Your task to perform on an android device: toggle notifications settings in the gmail app Image 0: 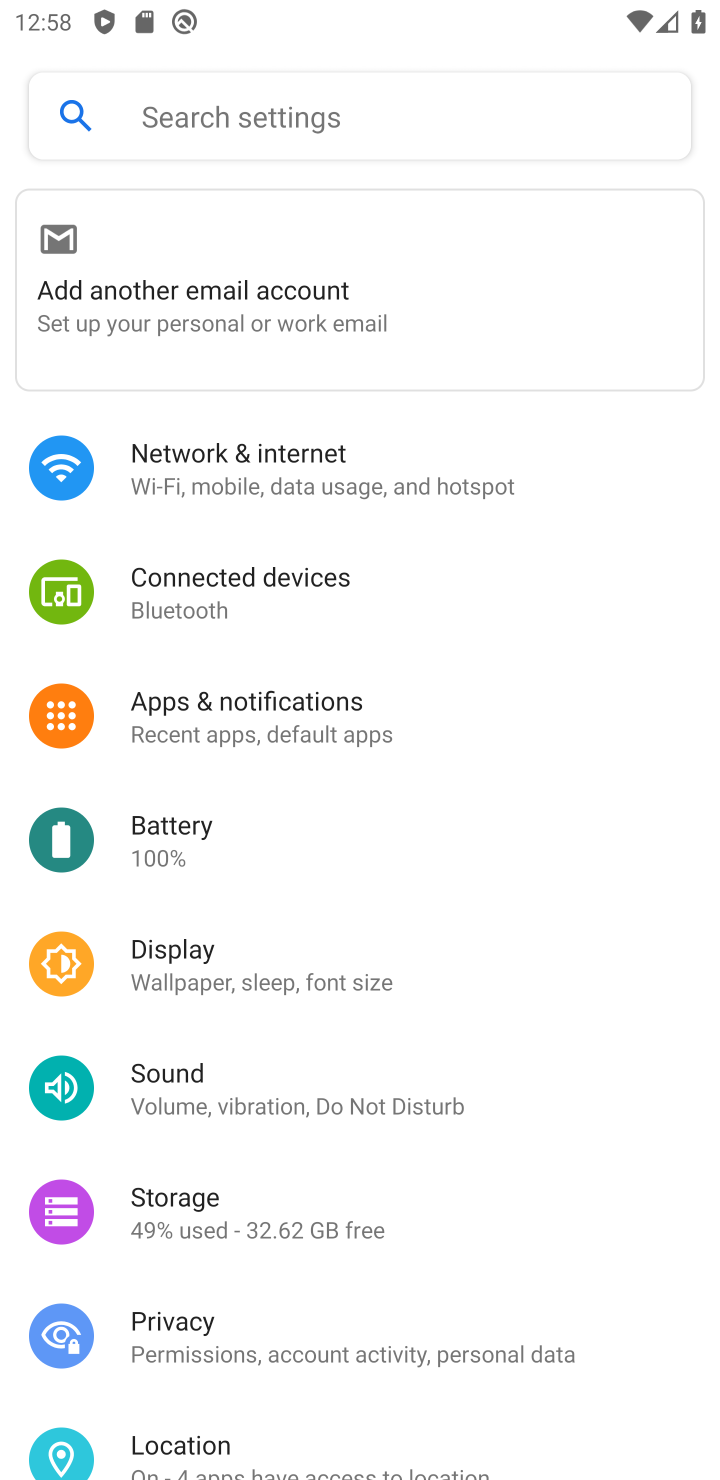
Step 0: press home button
Your task to perform on an android device: toggle notifications settings in the gmail app Image 1: 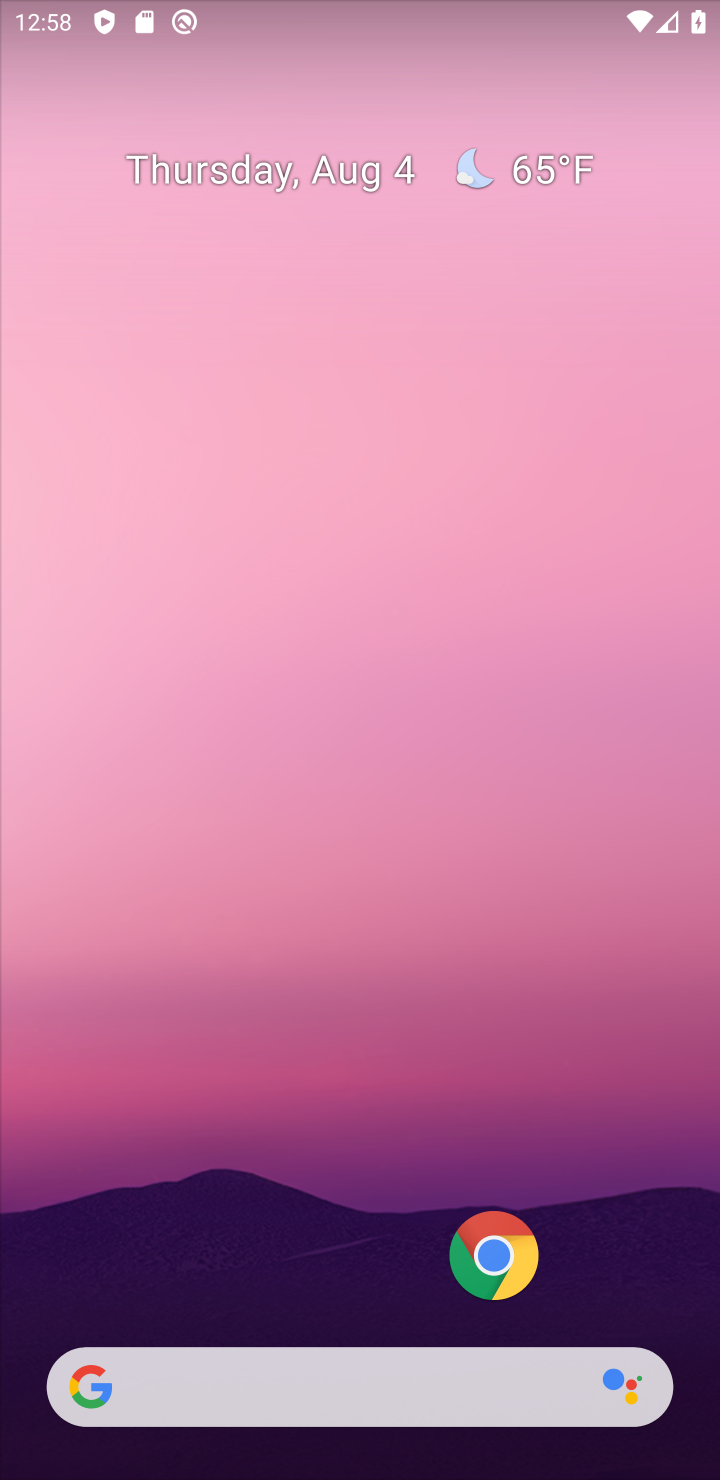
Step 1: drag from (232, 1103) to (344, 60)
Your task to perform on an android device: toggle notifications settings in the gmail app Image 2: 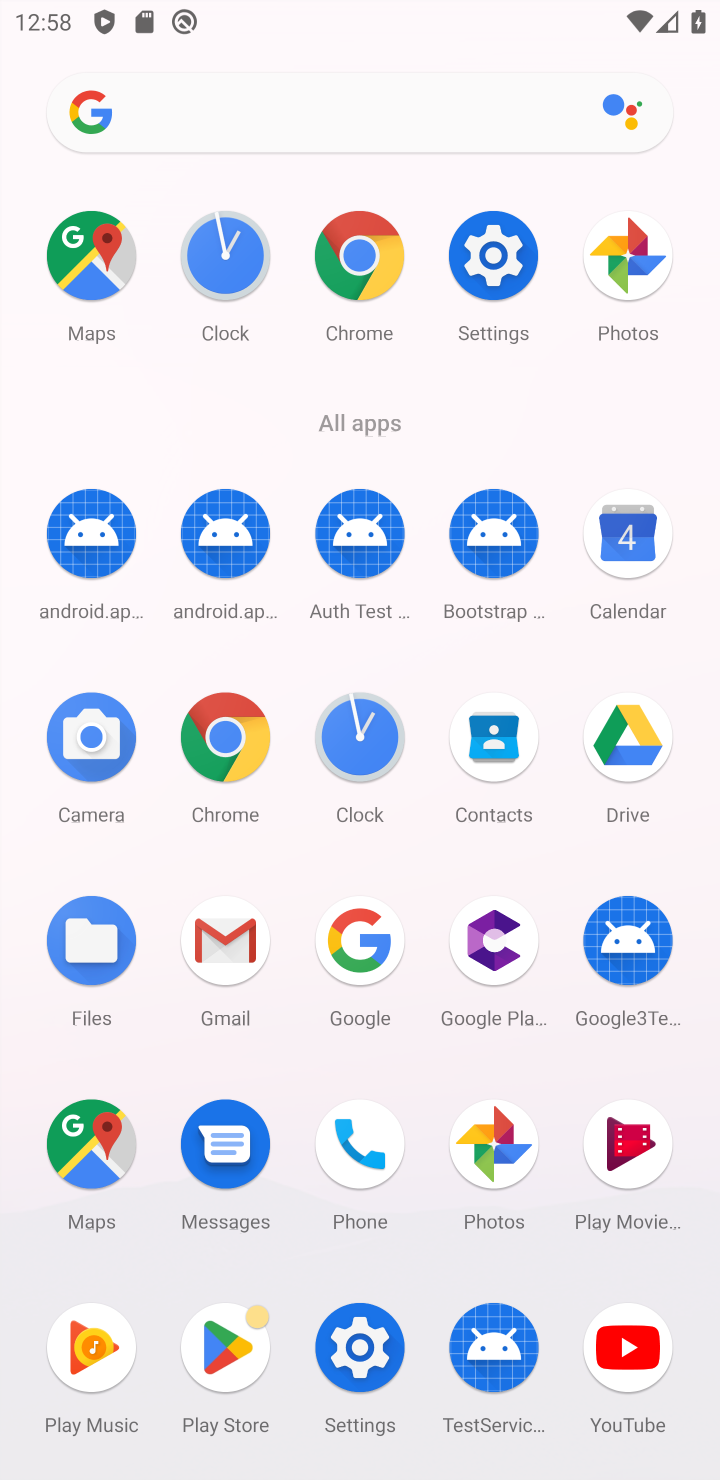
Step 2: click (226, 957)
Your task to perform on an android device: toggle notifications settings in the gmail app Image 3: 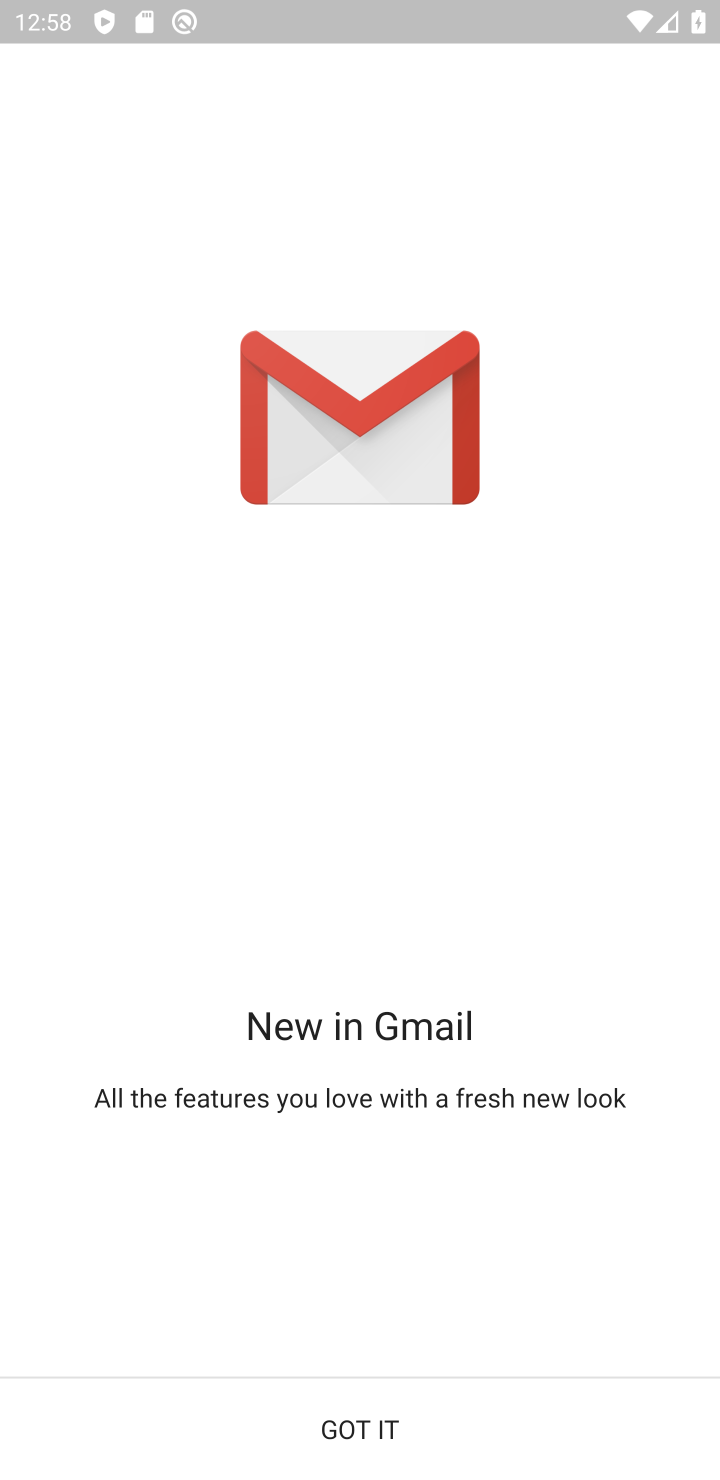
Step 3: click (302, 1427)
Your task to perform on an android device: toggle notifications settings in the gmail app Image 4: 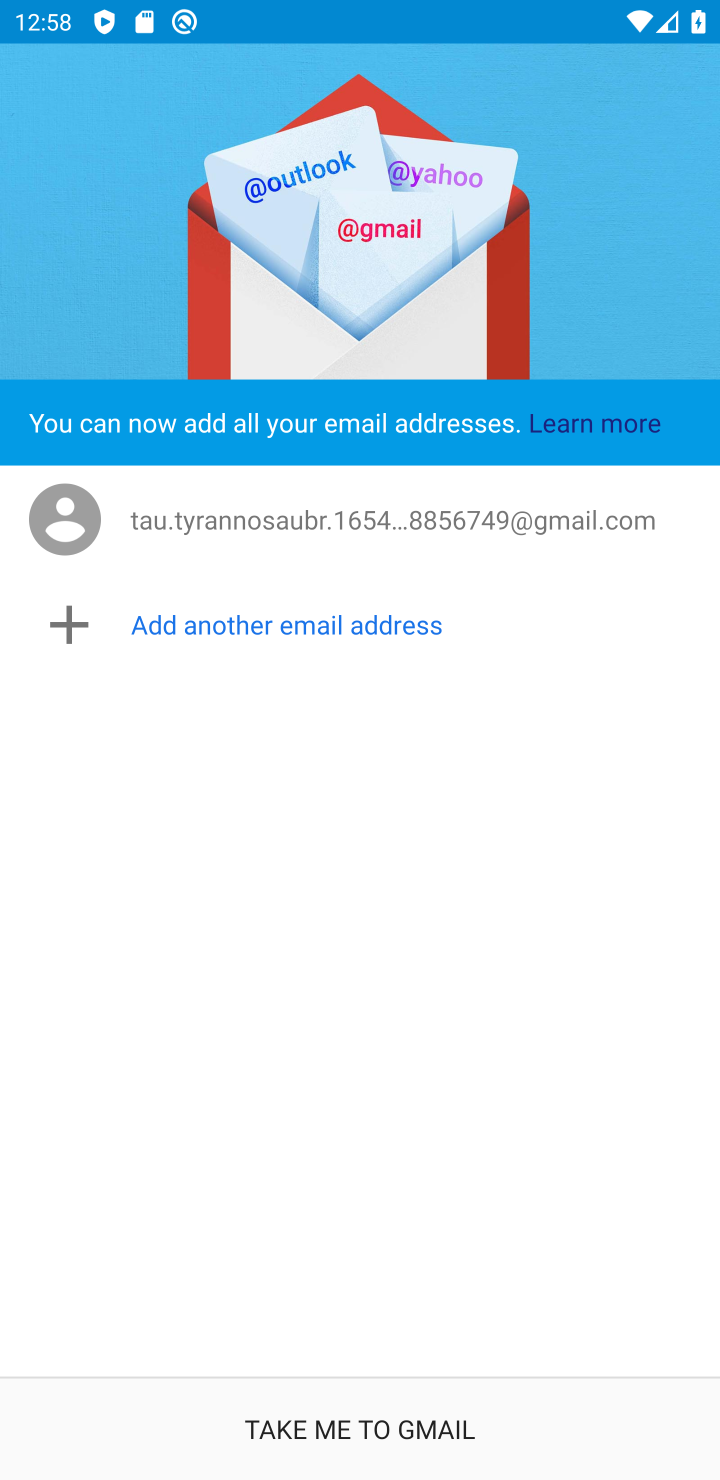
Step 4: click (433, 1431)
Your task to perform on an android device: toggle notifications settings in the gmail app Image 5: 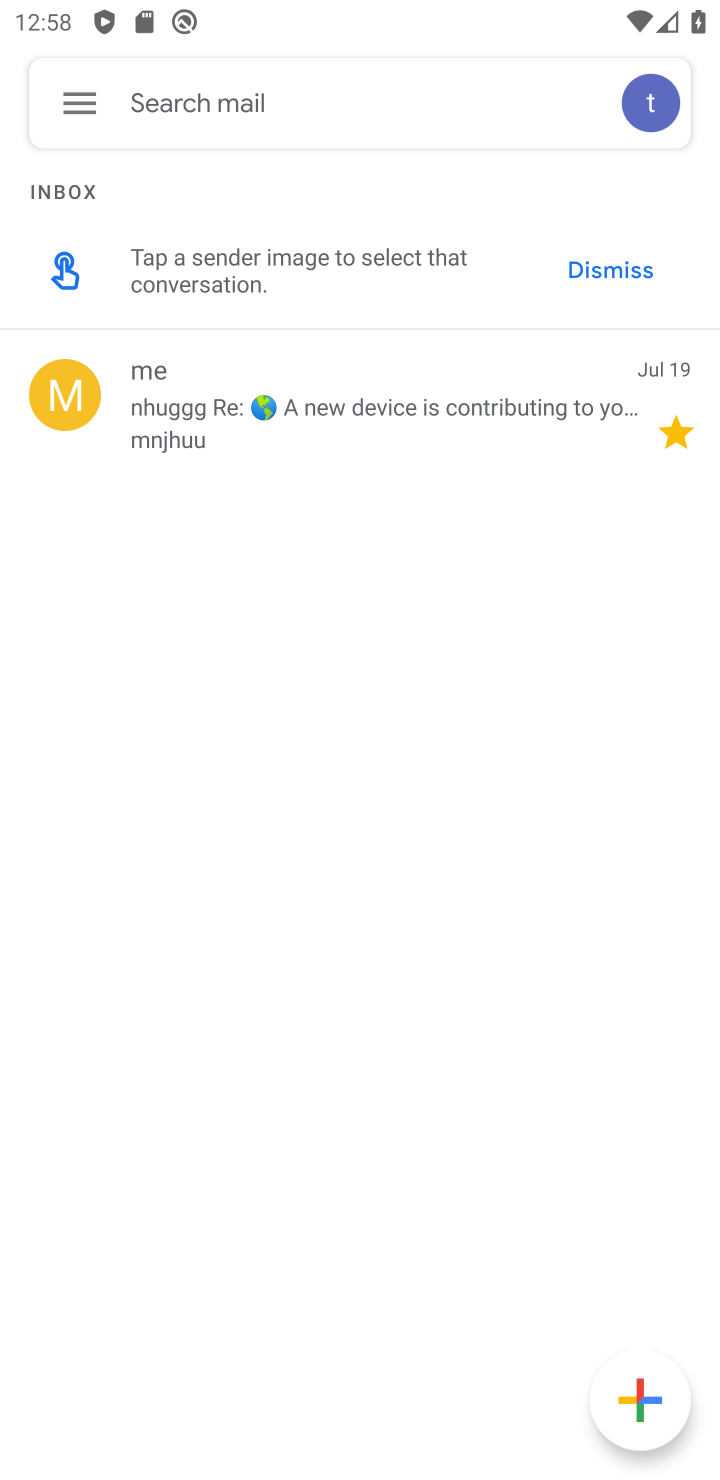
Step 5: click (72, 114)
Your task to perform on an android device: toggle notifications settings in the gmail app Image 6: 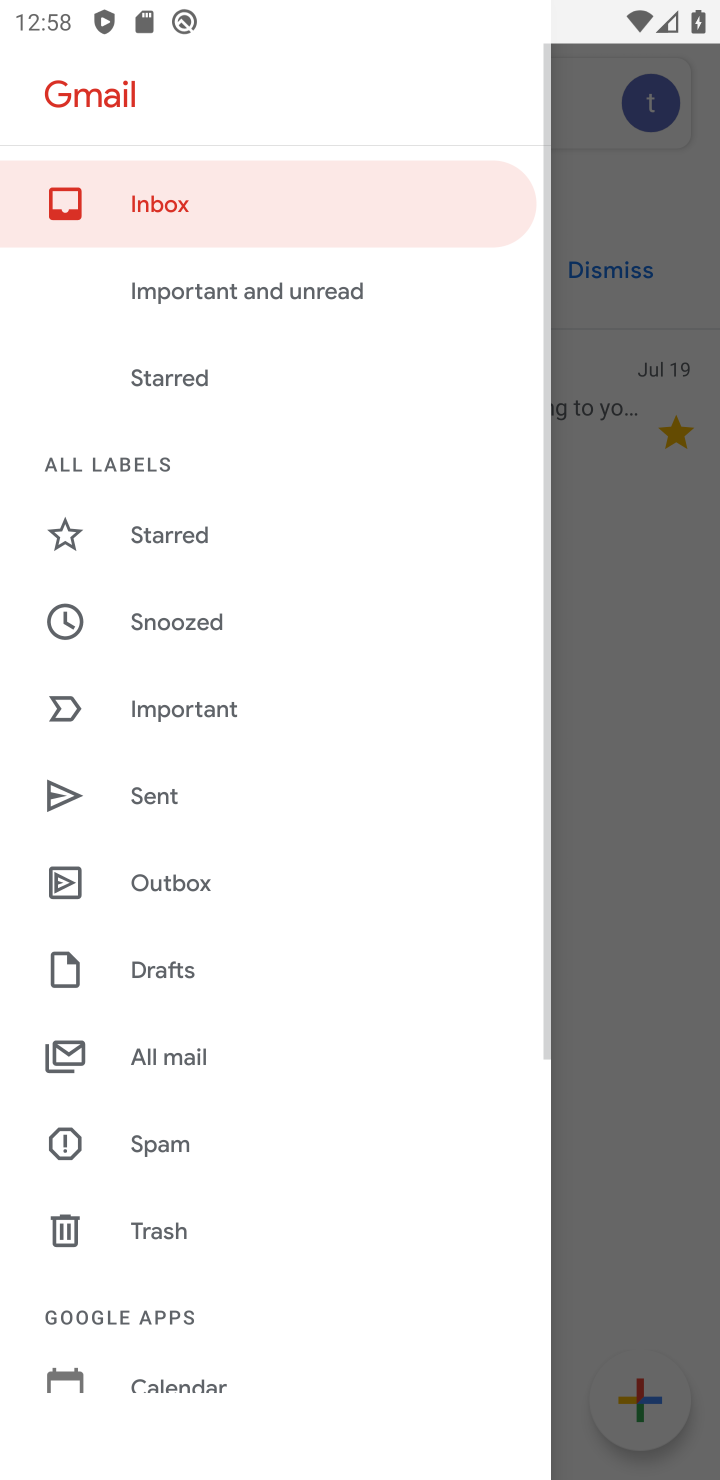
Step 6: drag from (201, 1134) to (247, 260)
Your task to perform on an android device: toggle notifications settings in the gmail app Image 7: 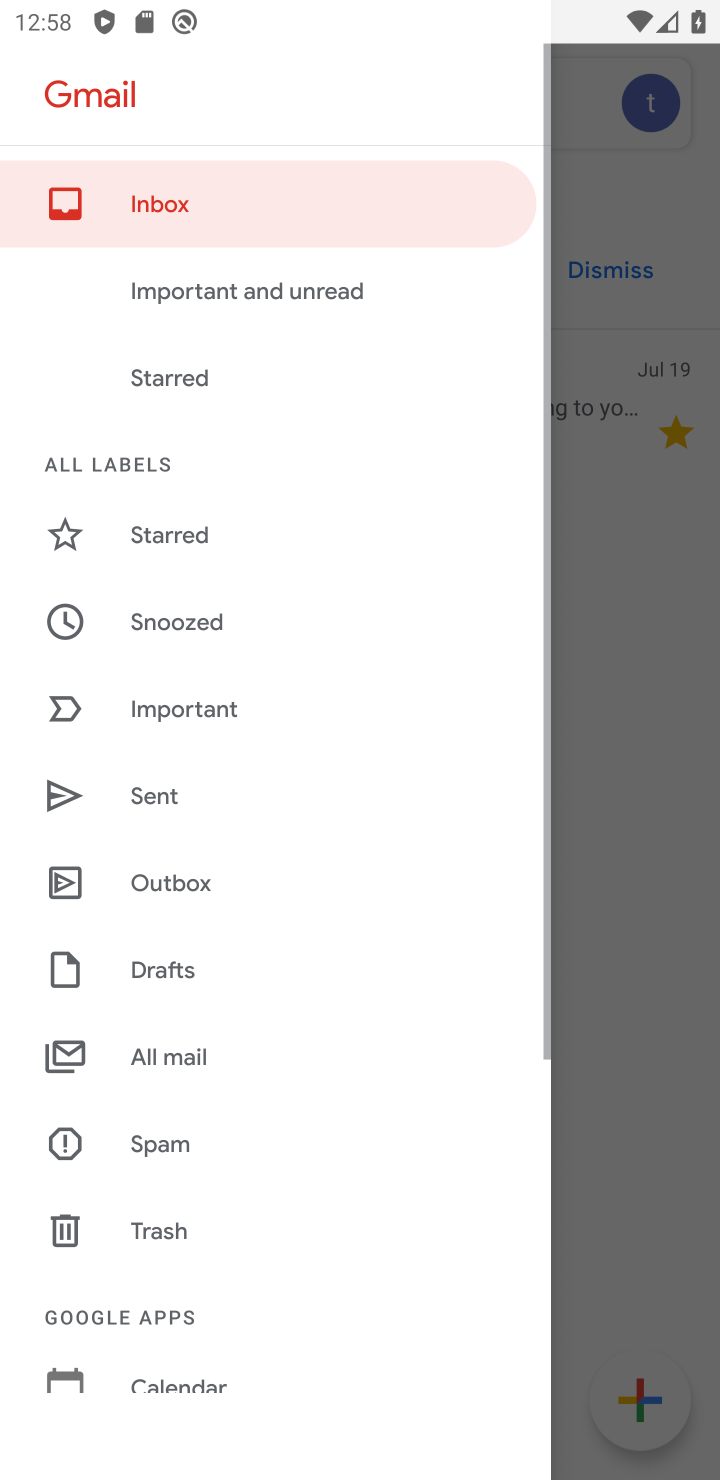
Step 7: drag from (174, 1282) to (286, 539)
Your task to perform on an android device: toggle notifications settings in the gmail app Image 8: 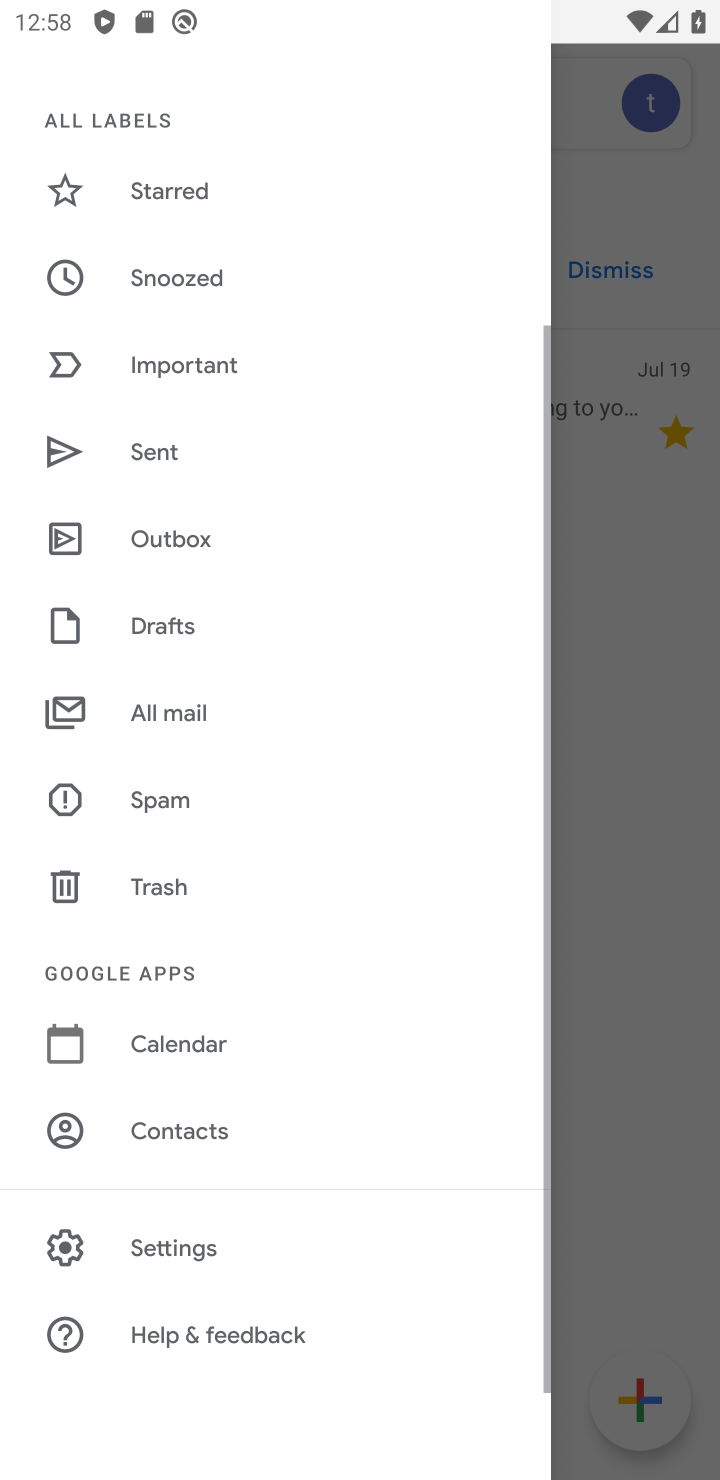
Step 8: click (160, 1246)
Your task to perform on an android device: toggle notifications settings in the gmail app Image 9: 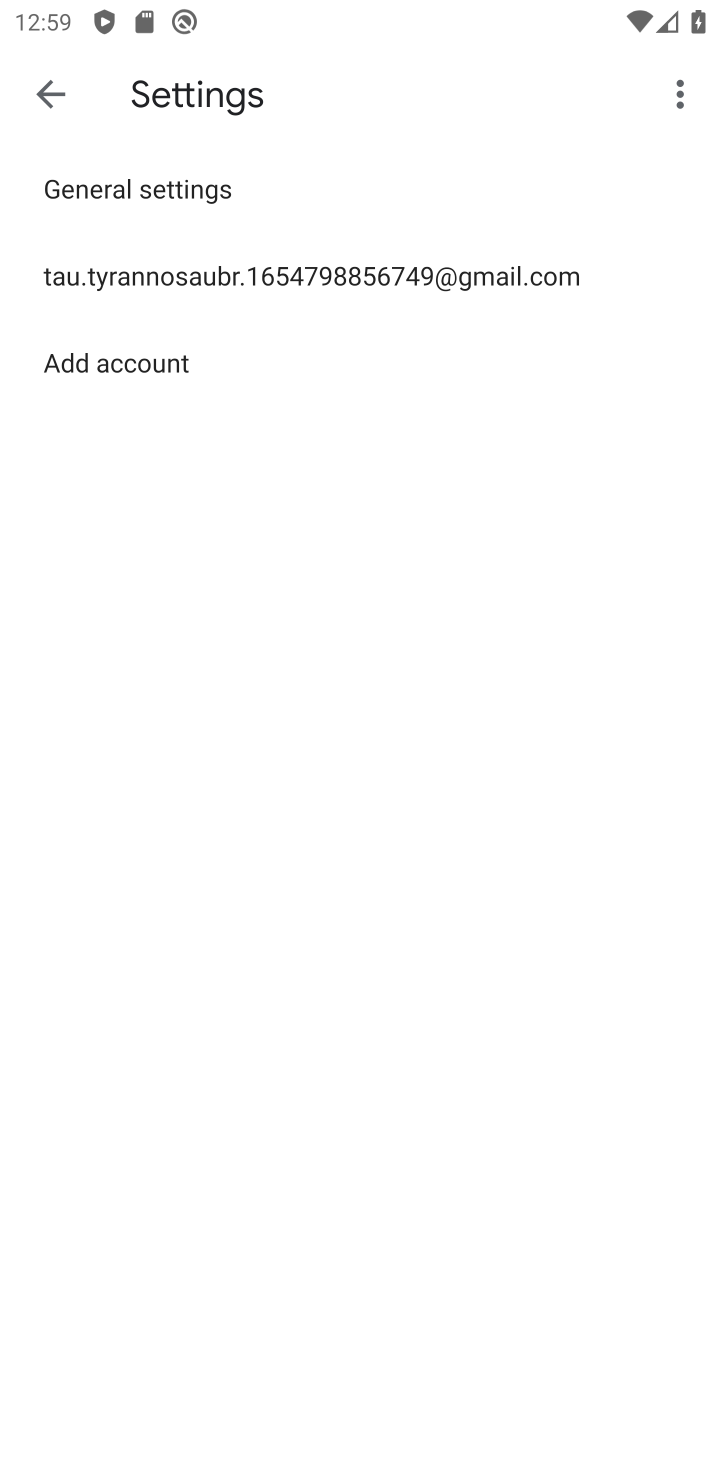
Step 9: click (205, 280)
Your task to perform on an android device: toggle notifications settings in the gmail app Image 10: 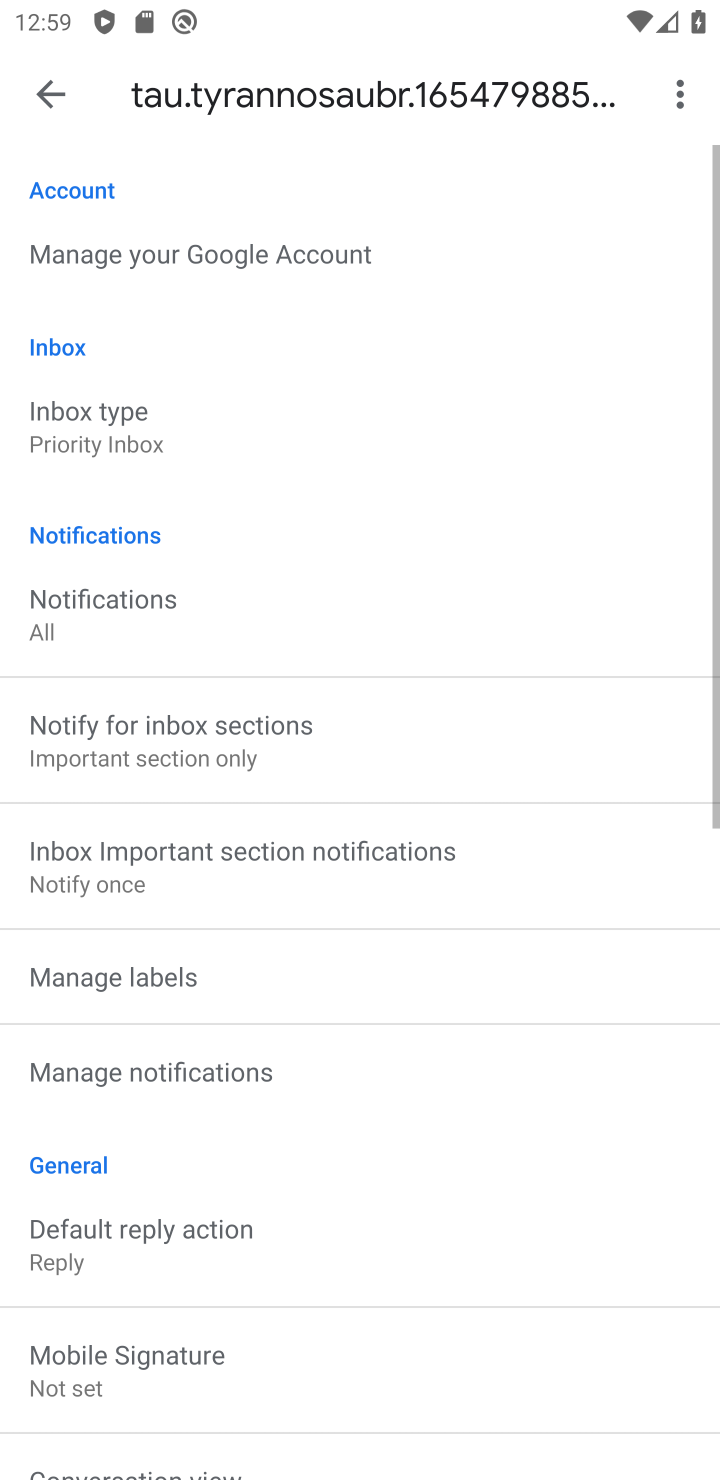
Step 10: click (117, 643)
Your task to perform on an android device: toggle notifications settings in the gmail app Image 11: 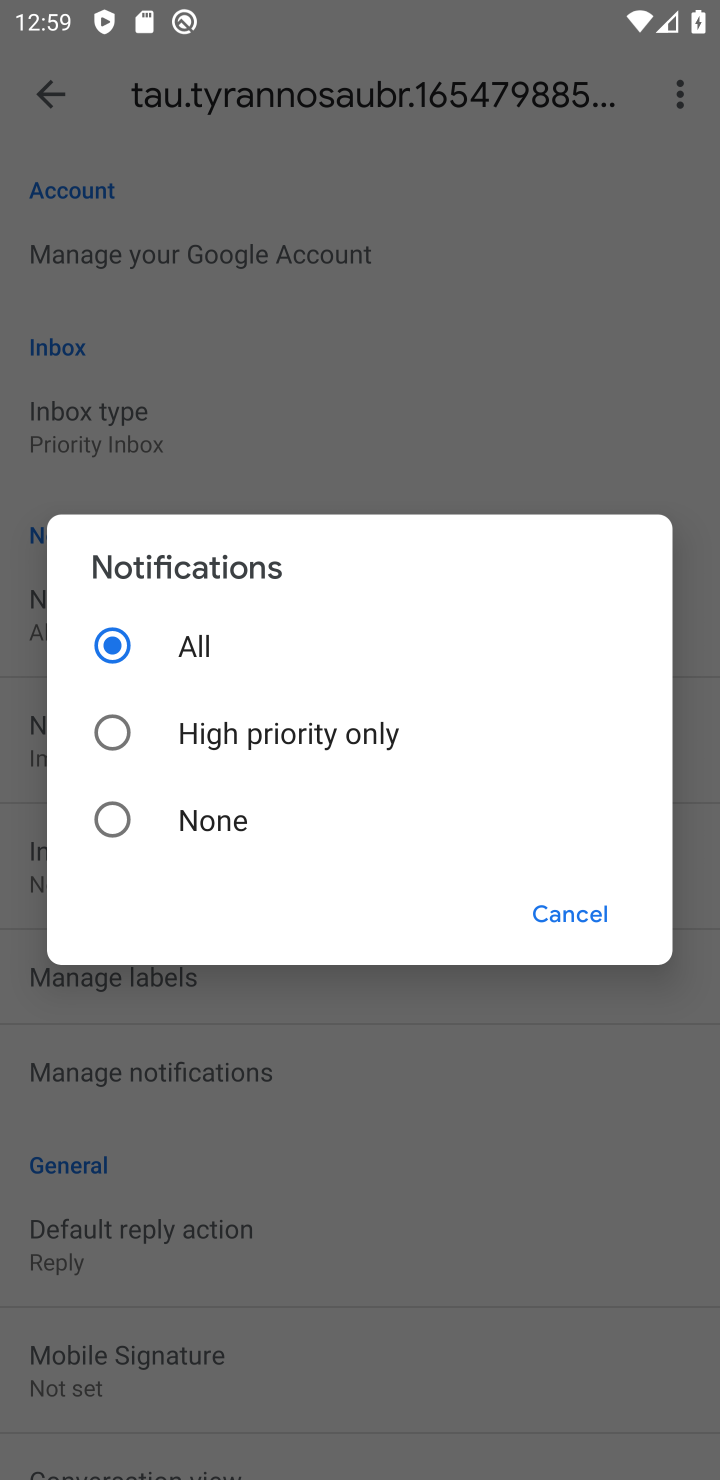
Step 11: click (138, 736)
Your task to perform on an android device: toggle notifications settings in the gmail app Image 12: 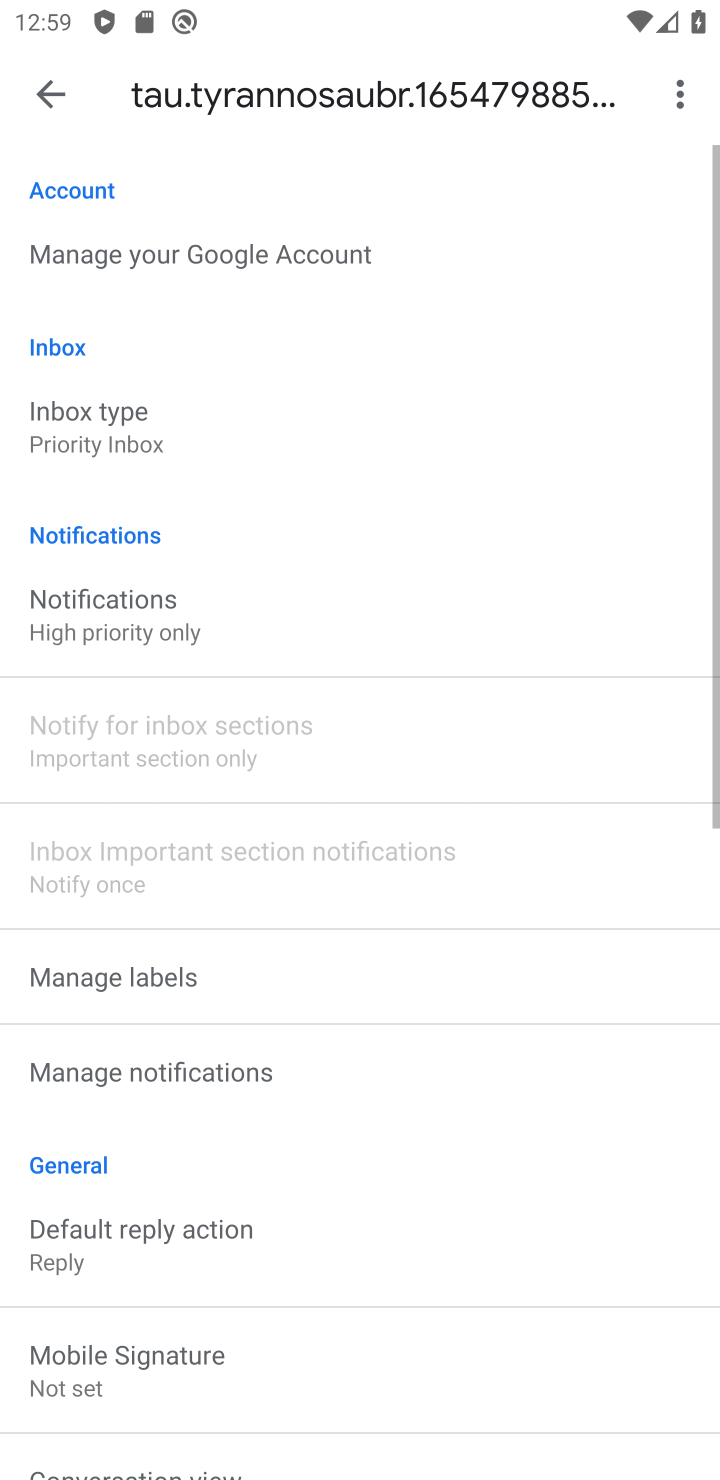
Step 12: task complete